Your task to perform on an android device: turn on sleep mode Image 0: 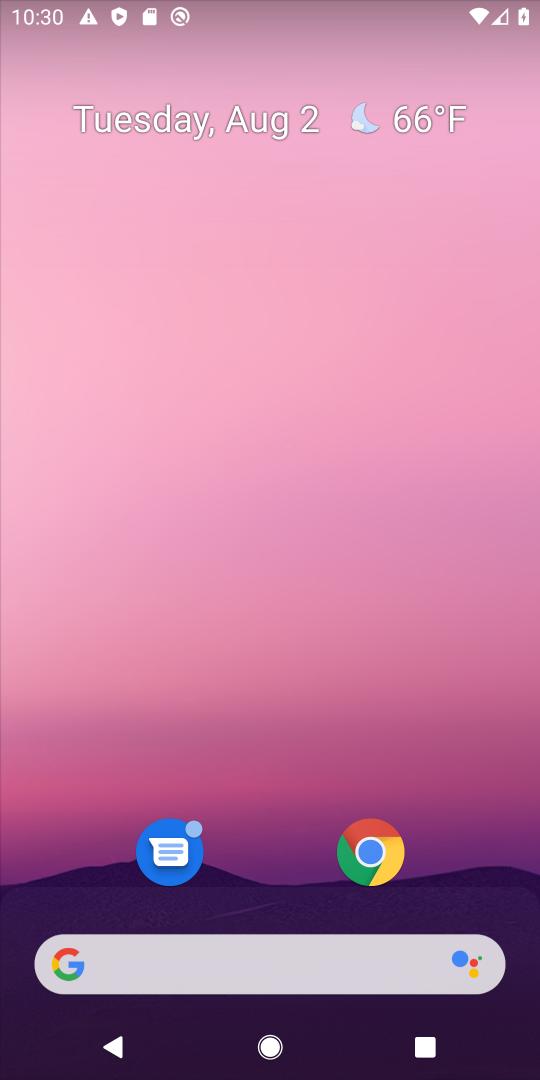
Step 0: drag from (473, 887) to (420, 0)
Your task to perform on an android device: turn on sleep mode Image 1: 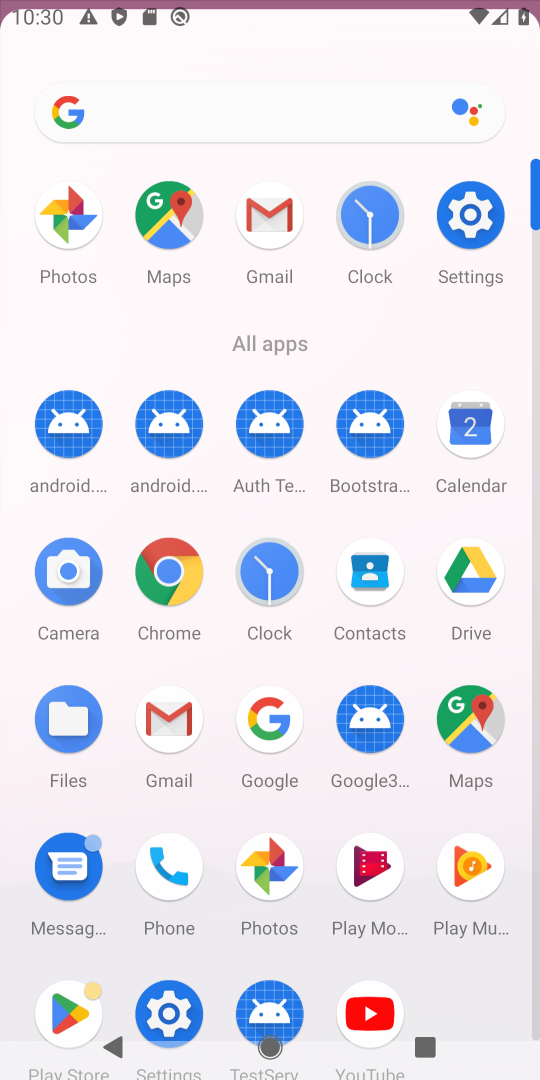
Step 1: click (481, 207)
Your task to perform on an android device: turn on sleep mode Image 2: 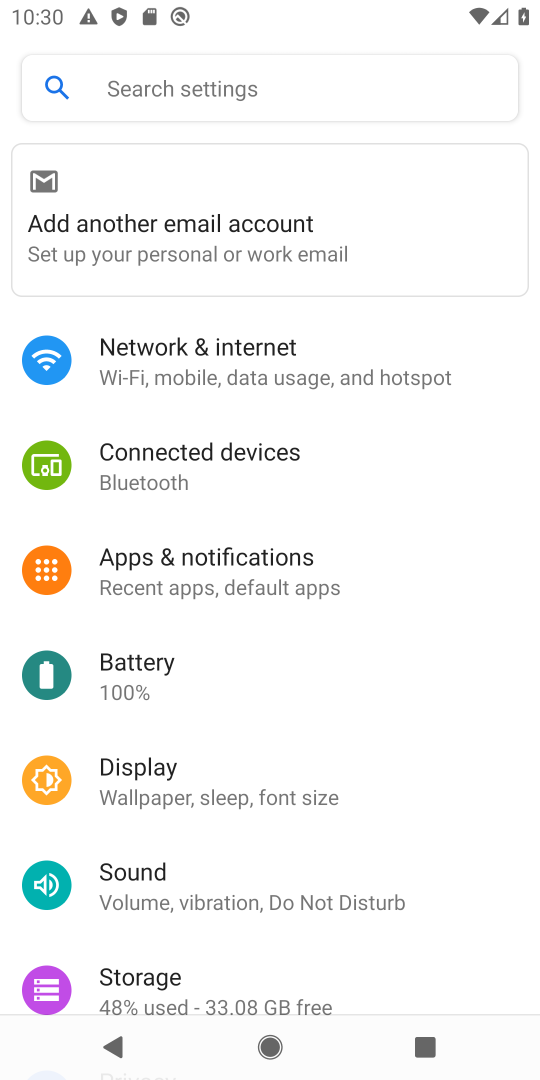
Step 2: click (240, 801)
Your task to perform on an android device: turn on sleep mode Image 3: 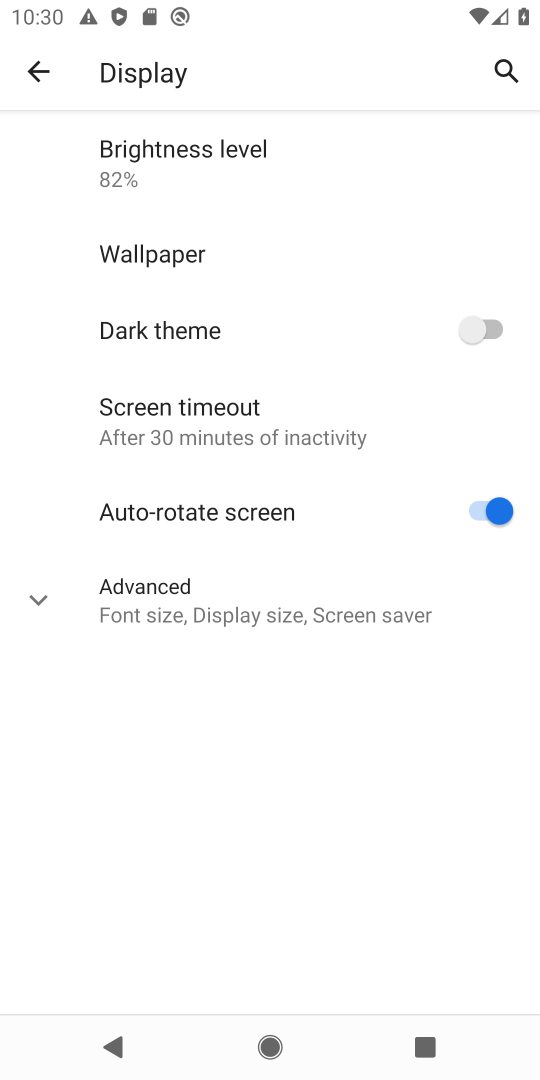
Step 3: click (273, 608)
Your task to perform on an android device: turn on sleep mode Image 4: 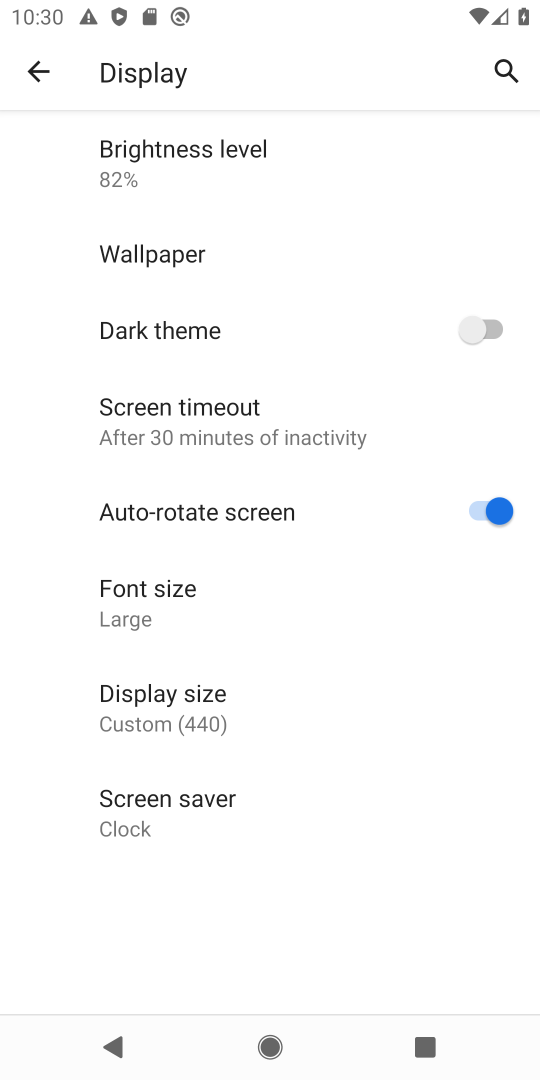
Step 4: task complete